Your task to perform on an android device: Open eBay Image 0: 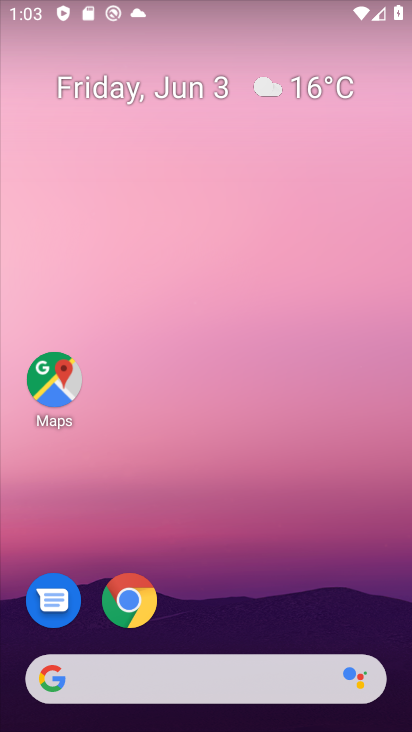
Step 0: drag from (192, 636) to (208, 361)
Your task to perform on an android device: Open eBay Image 1: 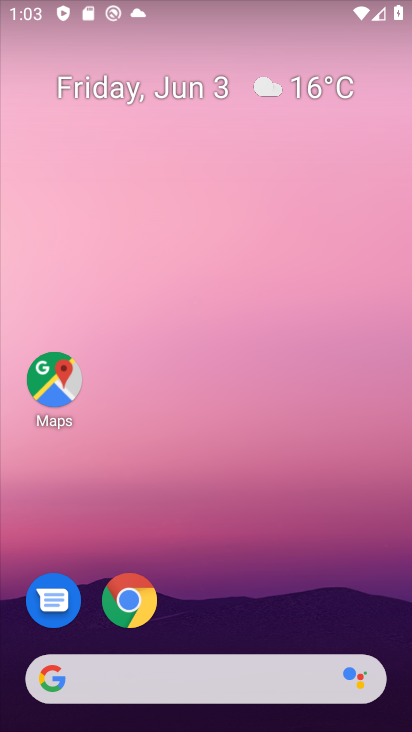
Step 1: drag from (201, 630) to (207, 4)
Your task to perform on an android device: Open eBay Image 2: 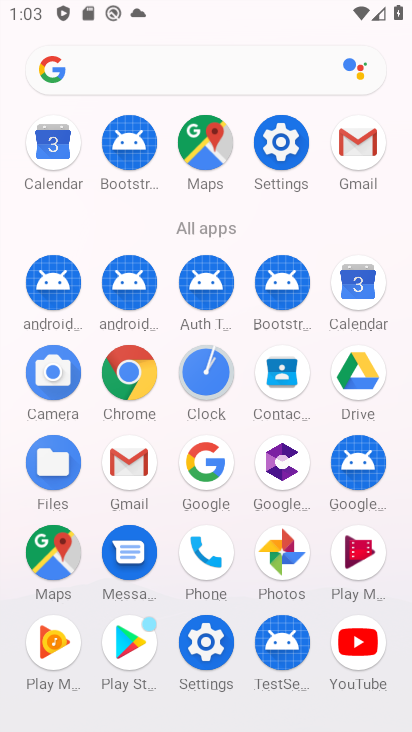
Step 2: click (102, 379)
Your task to perform on an android device: Open eBay Image 3: 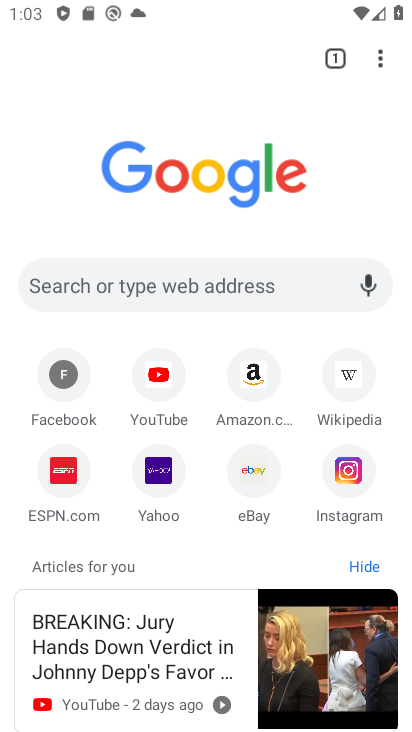
Step 3: click (255, 479)
Your task to perform on an android device: Open eBay Image 4: 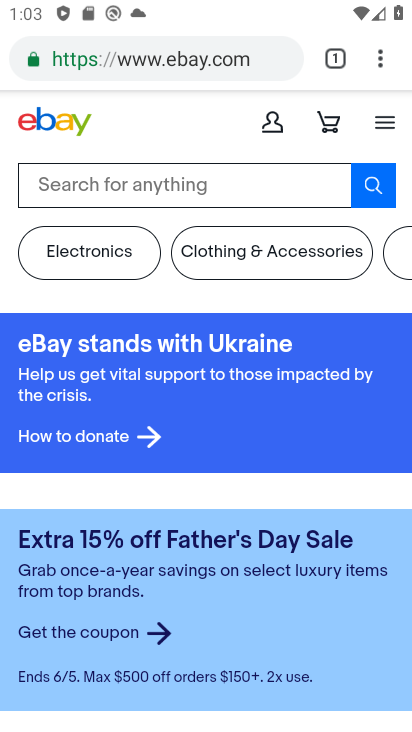
Step 4: task complete